Your task to perform on an android device: turn on improve location accuracy Image 0: 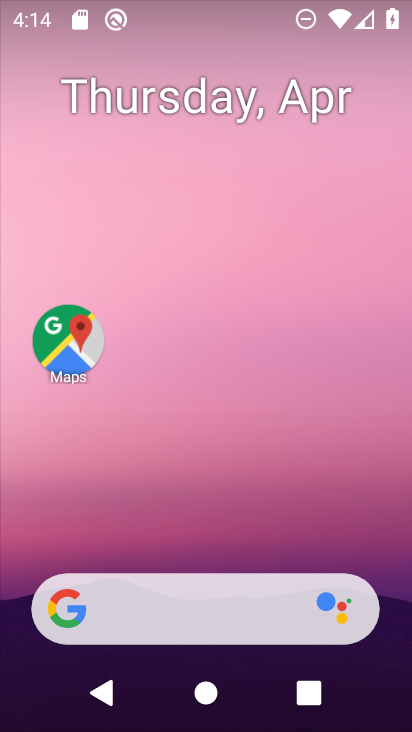
Step 0: drag from (207, 657) to (202, 101)
Your task to perform on an android device: turn on improve location accuracy Image 1: 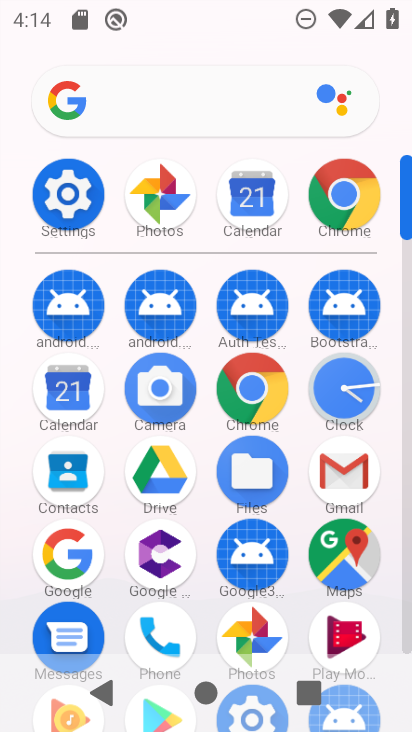
Step 1: click (62, 195)
Your task to perform on an android device: turn on improve location accuracy Image 2: 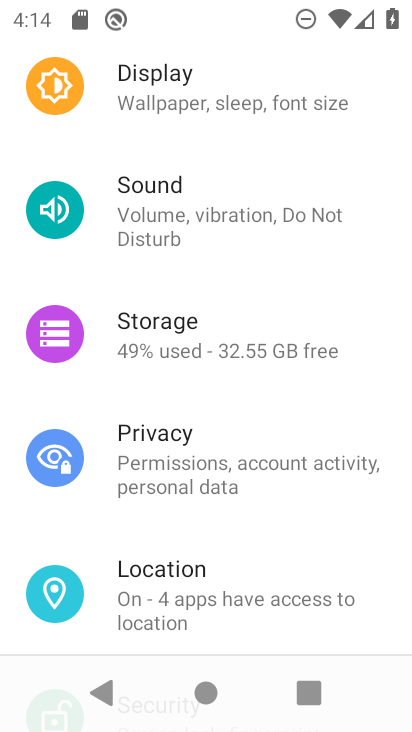
Step 2: click (159, 592)
Your task to perform on an android device: turn on improve location accuracy Image 3: 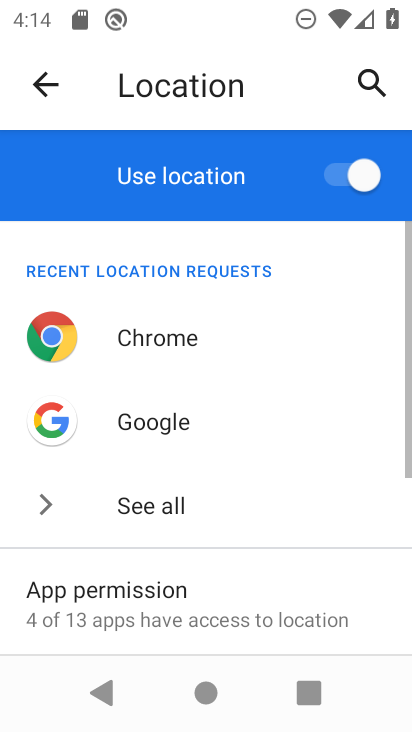
Step 3: drag from (209, 625) to (221, 275)
Your task to perform on an android device: turn on improve location accuracy Image 4: 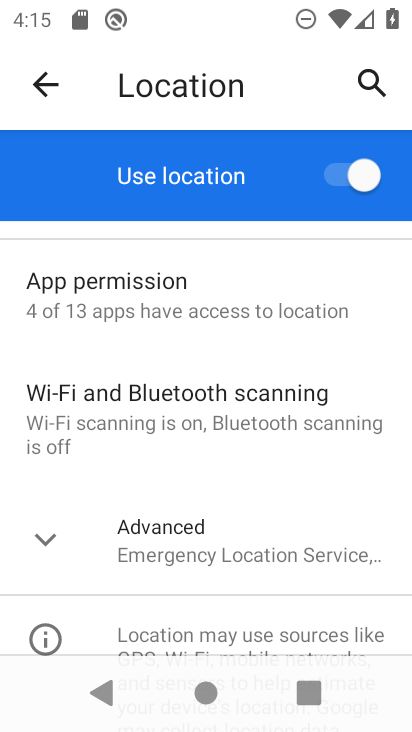
Step 4: click (177, 546)
Your task to perform on an android device: turn on improve location accuracy Image 5: 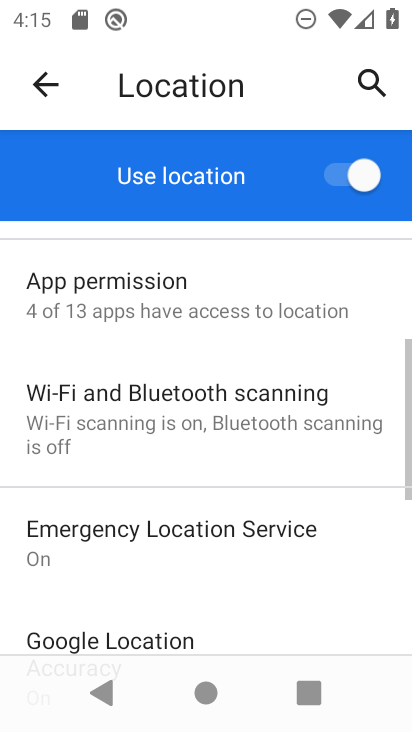
Step 5: drag from (228, 629) to (237, 260)
Your task to perform on an android device: turn on improve location accuracy Image 6: 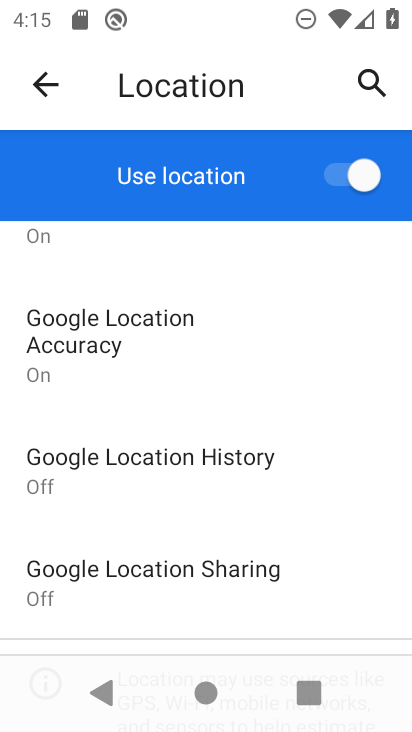
Step 6: click (77, 336)
Your task to perform on an android device: turn on improve location accuracy Image 7: 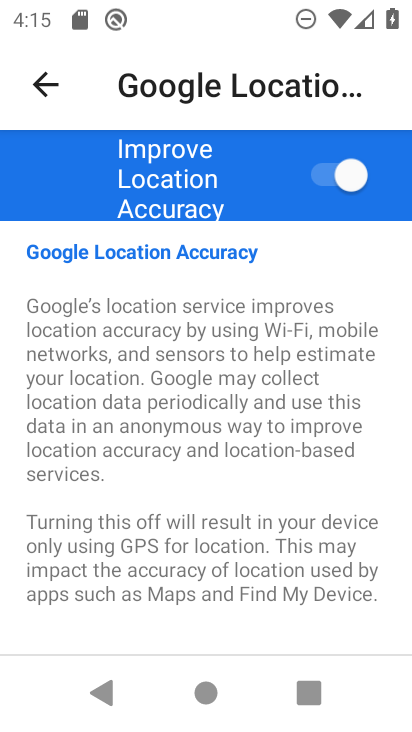
Step 7: task complete